Your task to perform on an android device: What is the news today? Image 0: 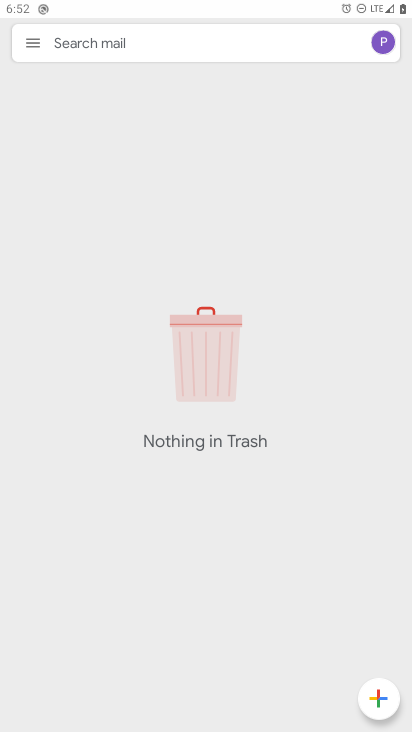
Step 0: press home button
Your task to perform on an android device: What is the news today? Image 1: 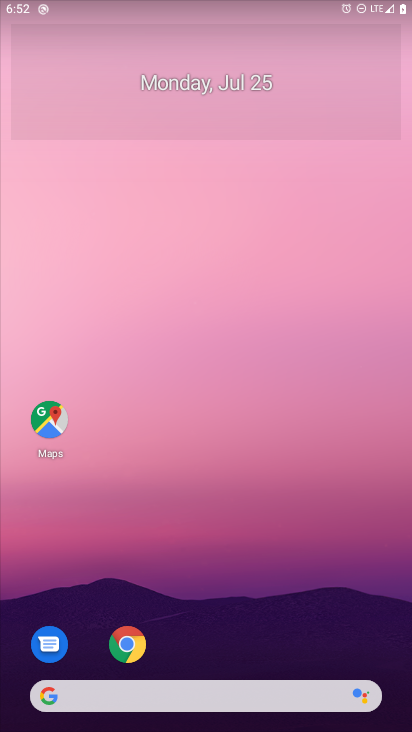
Step 1: click (48, 702)
Your task to perform on an android device: What is the news today? Image 2: 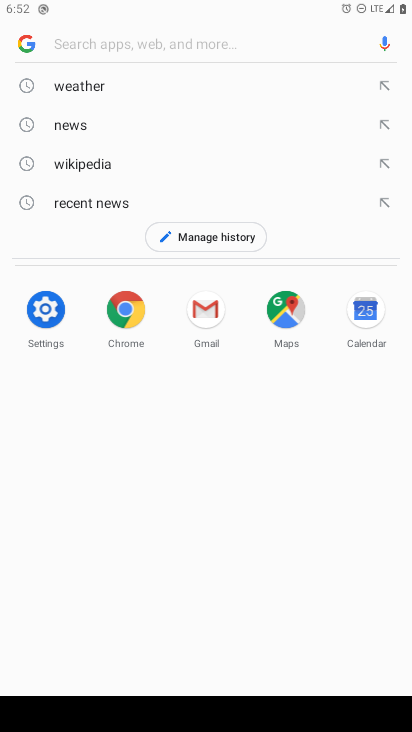
Step 2: type "news today?"
Your task to perform on an android device: What is the news today? Image 3: 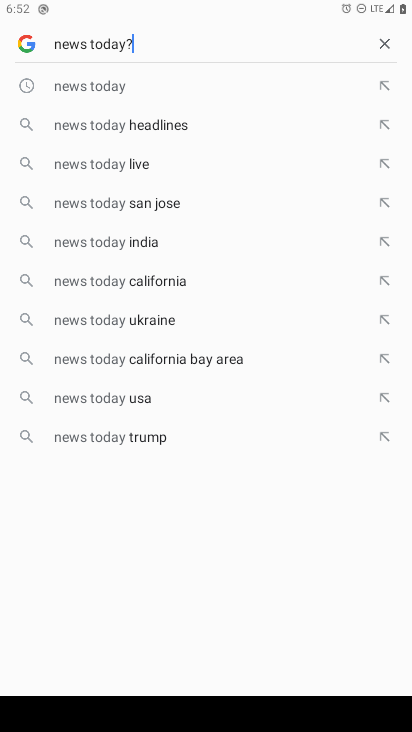
Step 3: press enter
Your task to perform on an android device: What is the news today? Image 4: 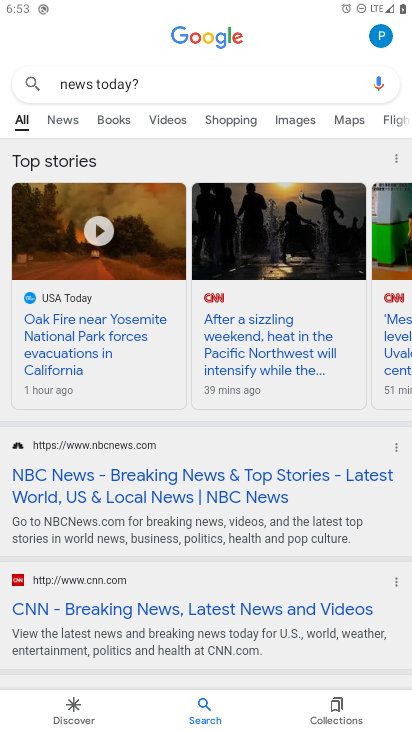
Step 4: task complete